Your task to perform on an android device: change the upload size in google photos Image 0: 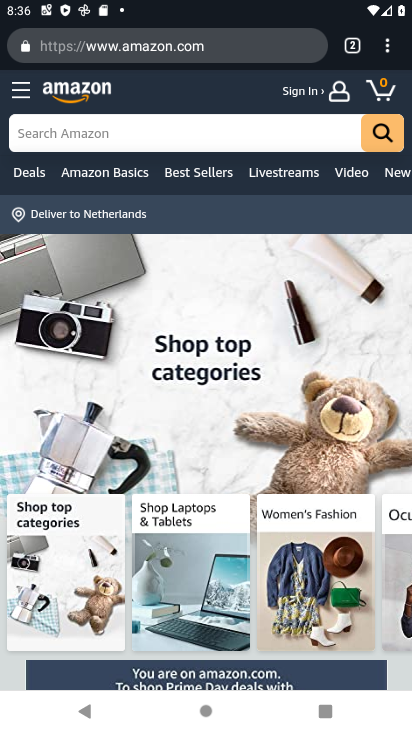
Step 0: press home button
Your task to perform on an android device: change the upload size in google photos Image 1: 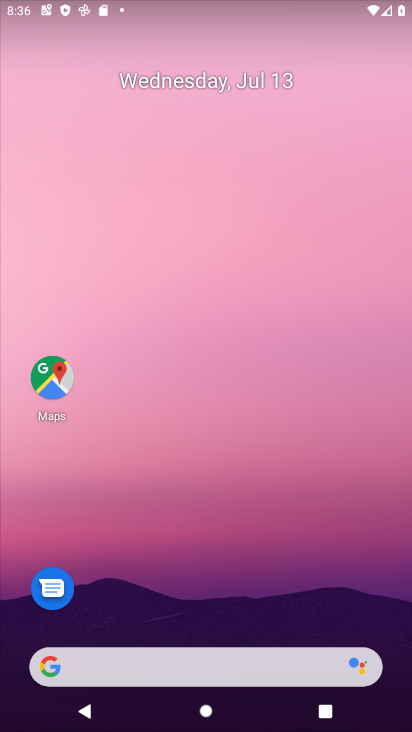
Step 1: drag from (147, 702) to (323, 84)
Your task to perform on an android device: change the upload size in google photos Image 2: 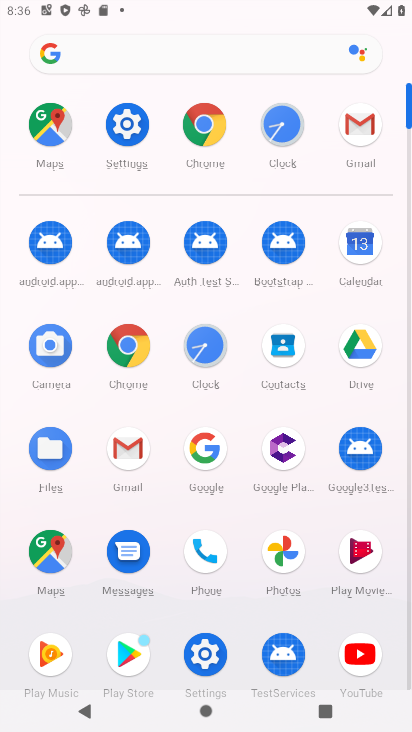
Step 2: click (288, 553)
Your task to perform on an android device: change the upload size in google photos Image 3: 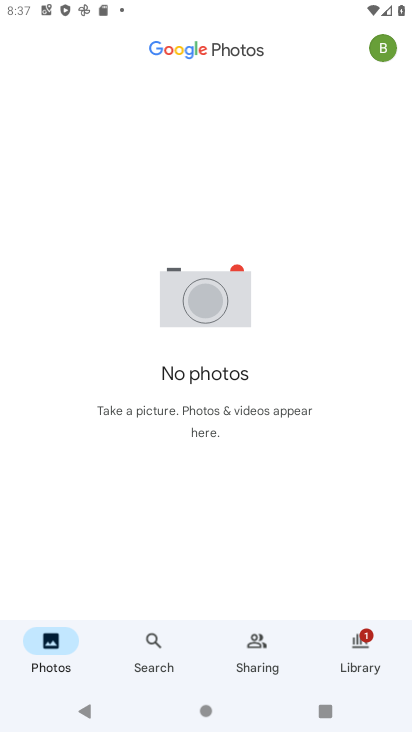
Step 3: click (371, 54)
Your task to perform on an android device: change the upload size in google photos Image 4: 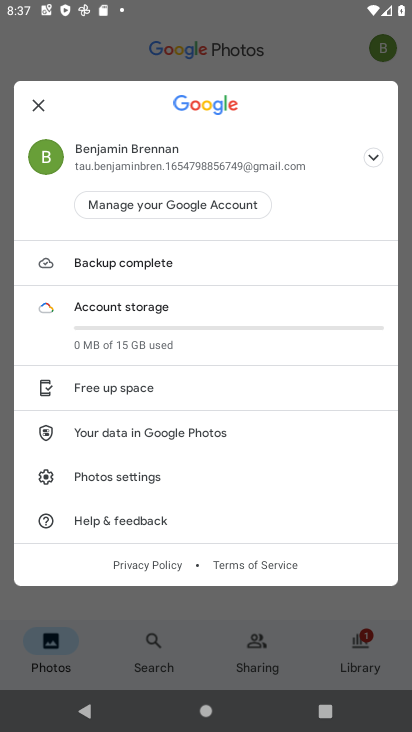
Step 4: click (124, 477)
Your task to perform on an android device: change the upload size in google photos Image 5: 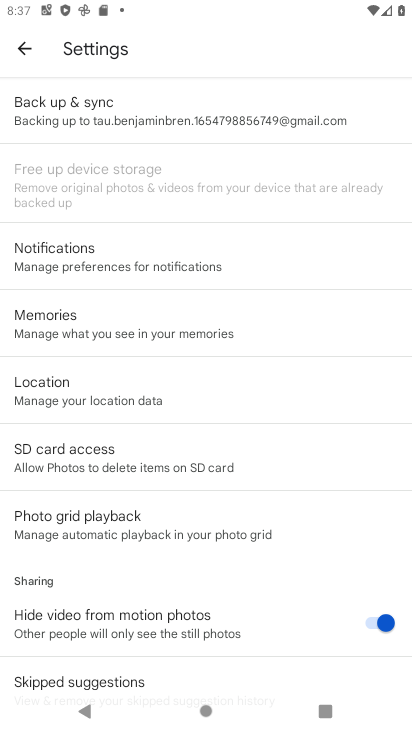
Step 5: click (182, 107)
Your task to perform on an android device: change the upload size in google photos Image 6: 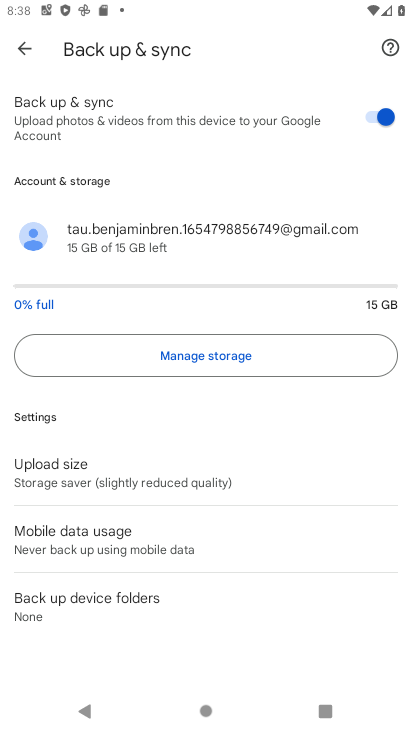
Step 6: click (208, 476)
Your task to perform on an android device: change the upload size in google photos Image 7: 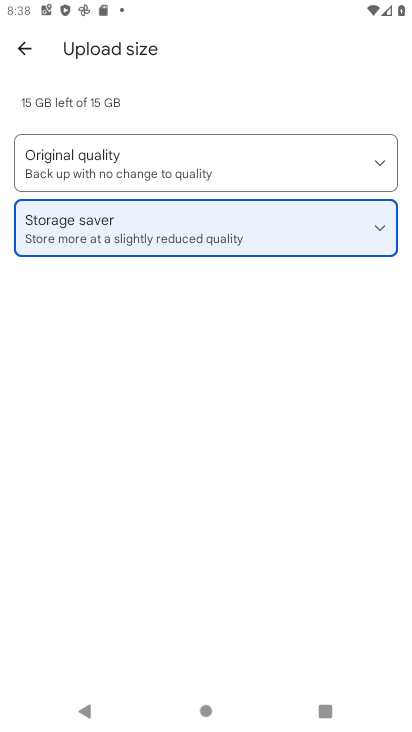
Step 7: click (235, 165)
Your task to perform on an android device: change the upload size in google photos Image 8: 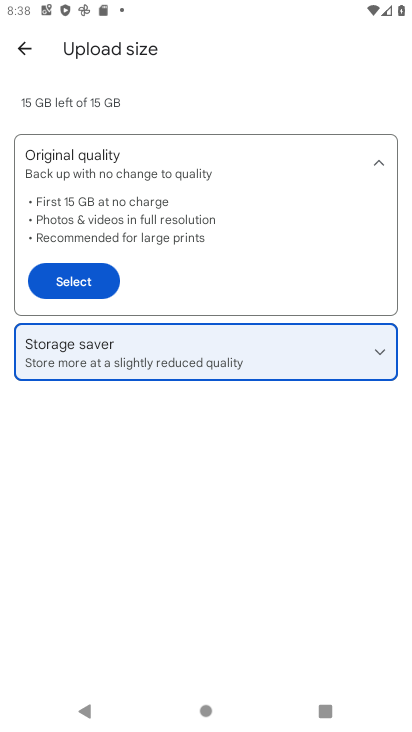
Step 8: click (85, 278)
Your task to perform on an android device: change the upload size in google photos Image 9: 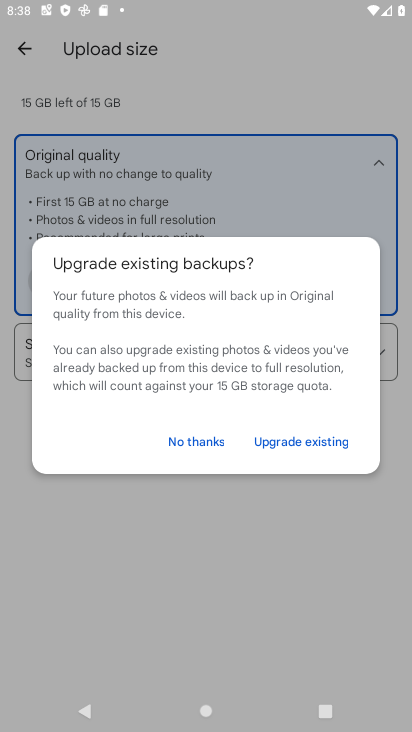
Step 9: click (194, 433)
Your task to perform on an android device: change the upload size in google photos Image 10: 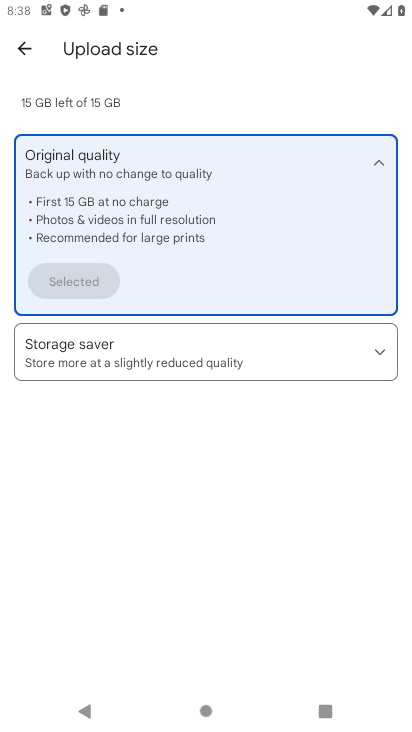
Step 10: task complete